Your task to perform on an android device: Open my contact list Image 0: 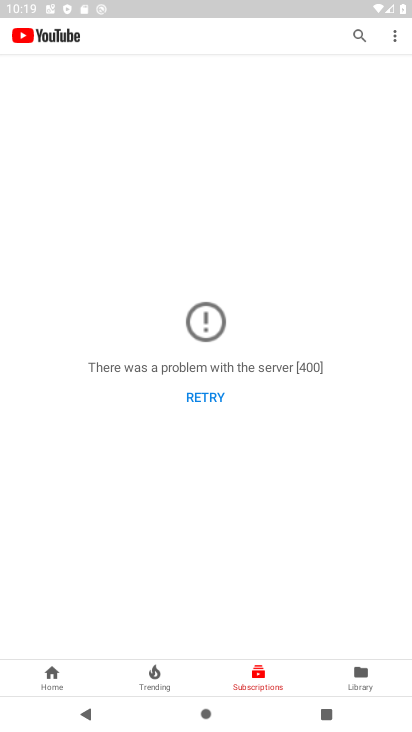
Step 0: press back button
Your task to perform on an android device: Open my contact list Image 1: 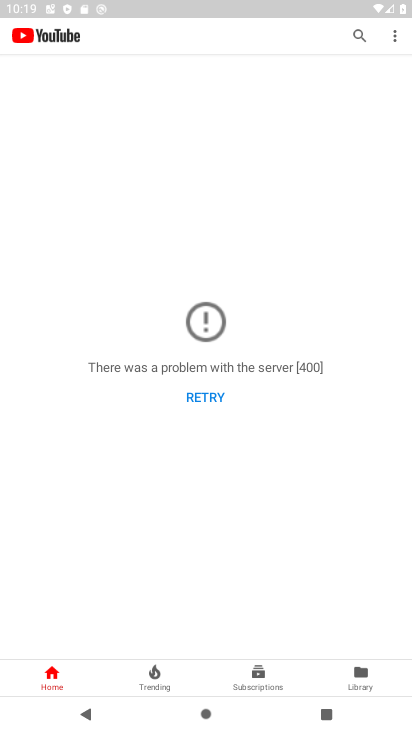
Step 1: press back button
Your task to perform on an android device: Open my contact list Image 2: 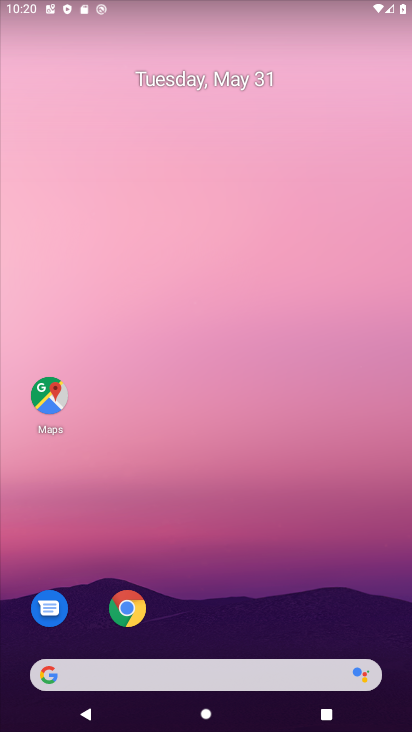
Step 2: drag from (206, 635) to (372, 6)
Your task to perform on an android device: Open my contact list Image 3: 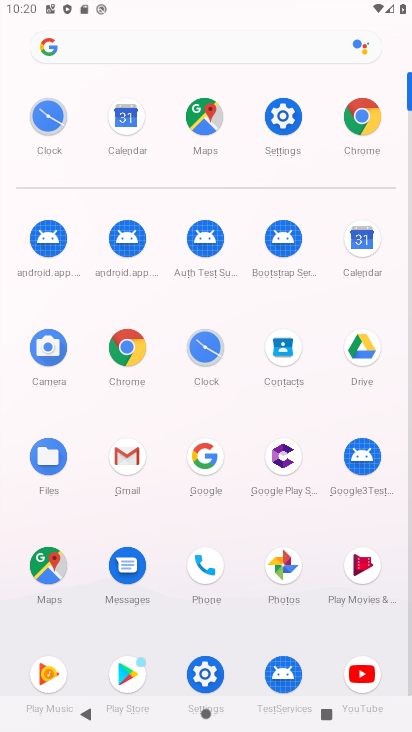
Step 3: click (204, 582)
Your task to perform on an android device: Open my contact list Image 4: 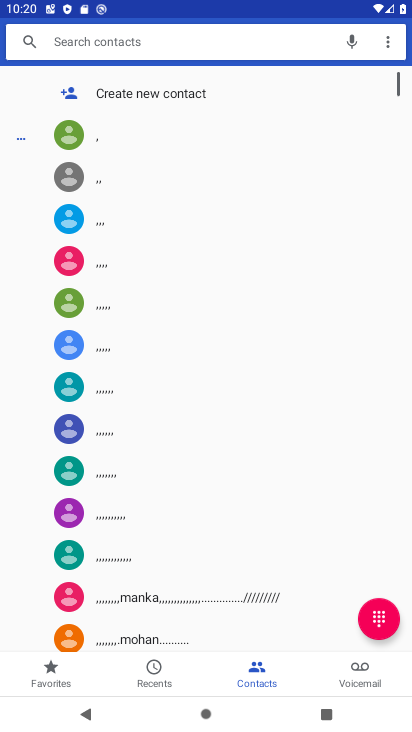
Step 4: click (257, 664)
Your task to perform on an android device: Open my contact list Image 5: 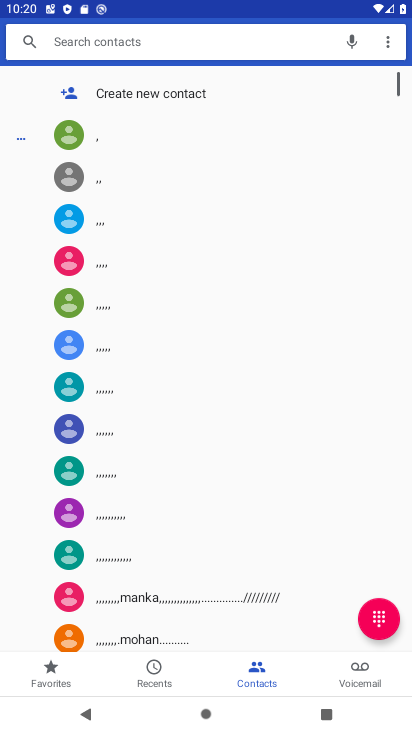
Step 5: task complete